Your task to perform on an android device: turn on wifi Image 0: 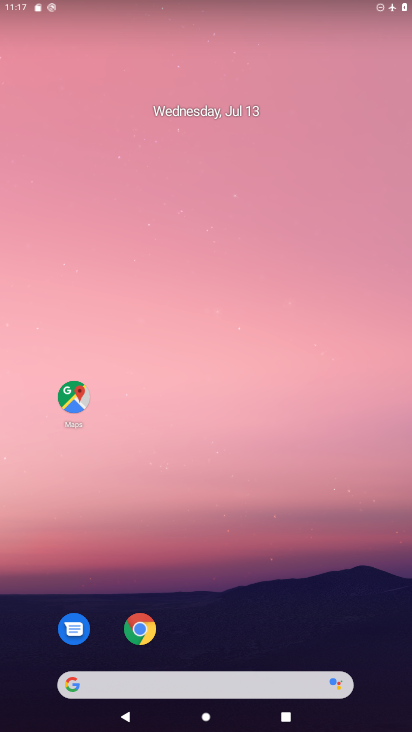
Step 0: drag from (379, 528) to (363, 118)
Your task to perform on an android device: turn on wifi Image 1: 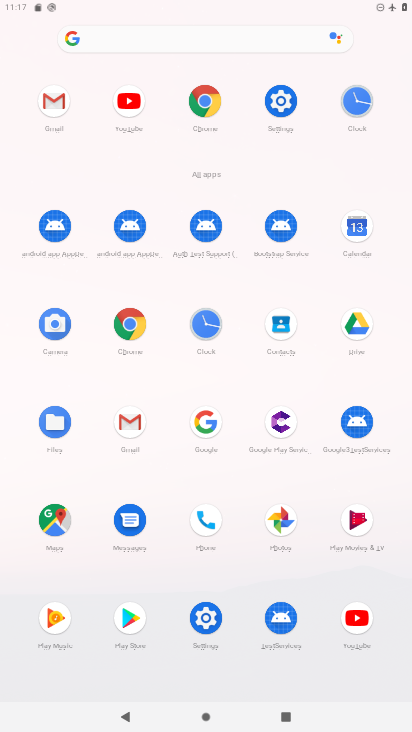
Step 1: click (280, 108)
Your task to perform on an android device: turn on wifi Image 2: 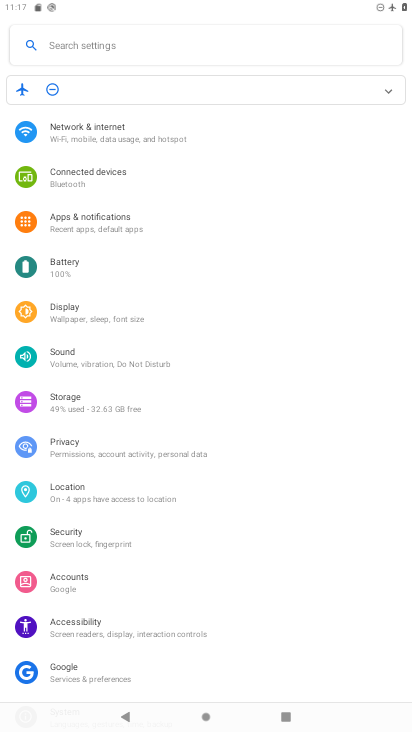
Step 2: click (110, 133)
Your task to perform on an android device: turn on wifi Image 3: 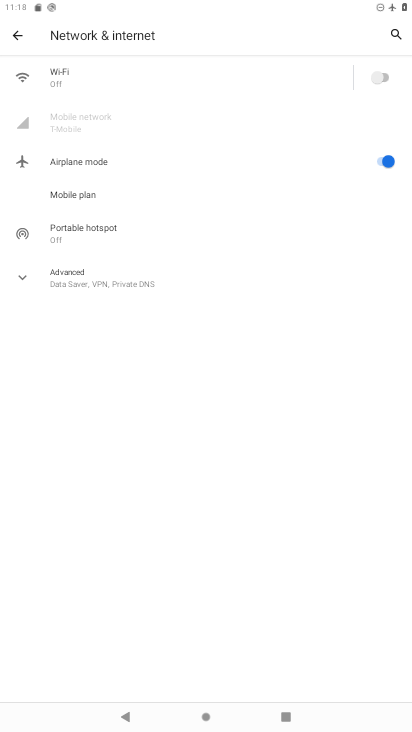
Step 3: click (387, 77)
Your task to perform on an android device: turn on wifi Image 4: 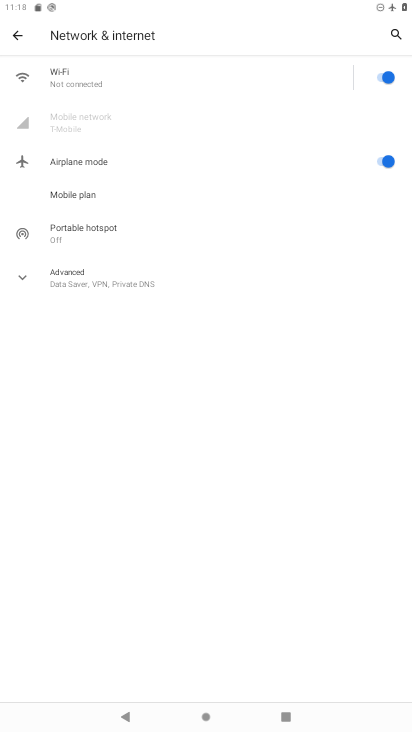
Step 4: click (379, 162)
Your task to perform on an android device: turn on wifi Image 5: 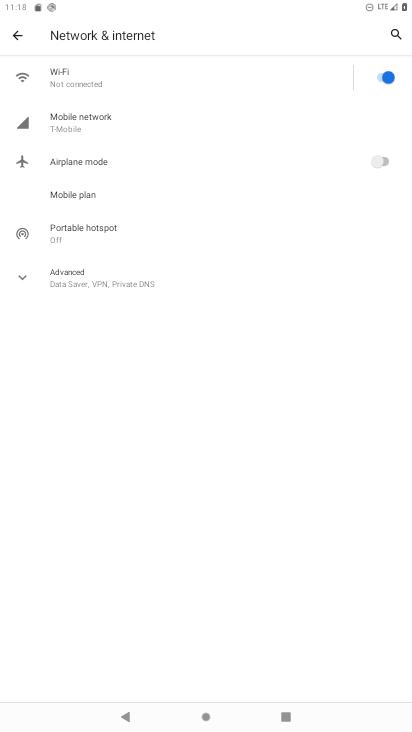
Step 5: task complete